Your task to perform on an android device: open a bookmark in the chrome app Image 0: 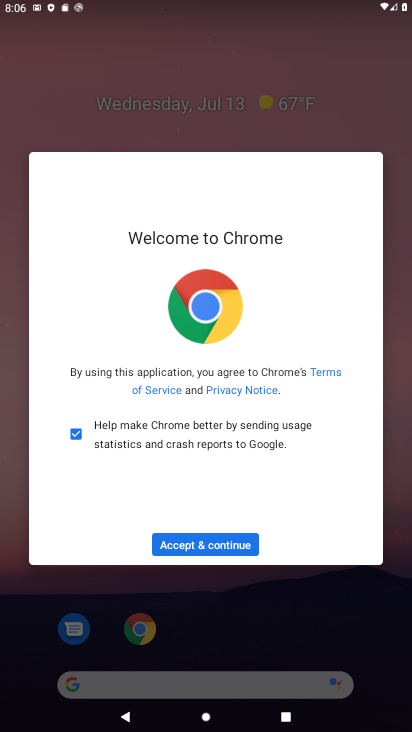
Step 0: click (237, 545)
Your task to perform on an android device: open a bookmark in the chrome app Image 1: 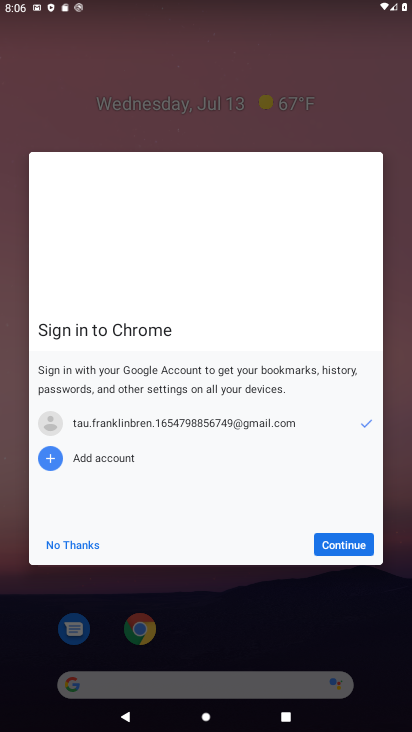
Step 1: click (361, 541)
Your task to perform on an android device: open a bookmark in the chrome app Image 2: 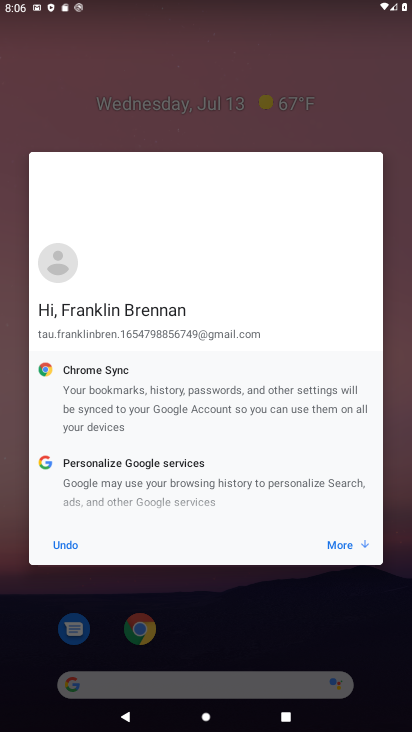
Step 2: click (339, 545)
Your task to perform on an android device: open a bookmark in the chrome app Image 3: 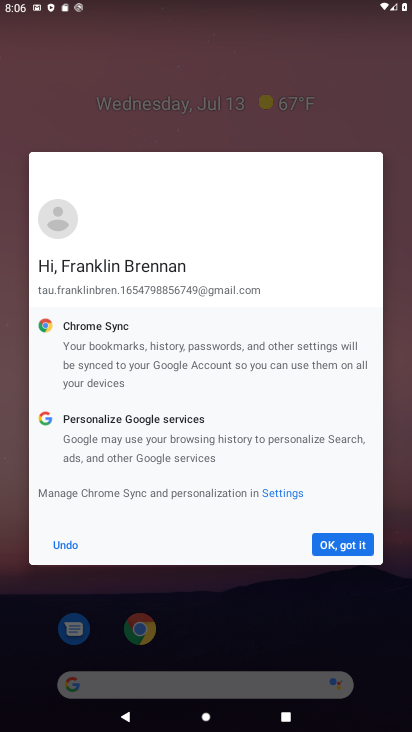
Step 3: click (339, 545)
Your task to perform on an android device: open a bookmark in the chrome app Image 4: 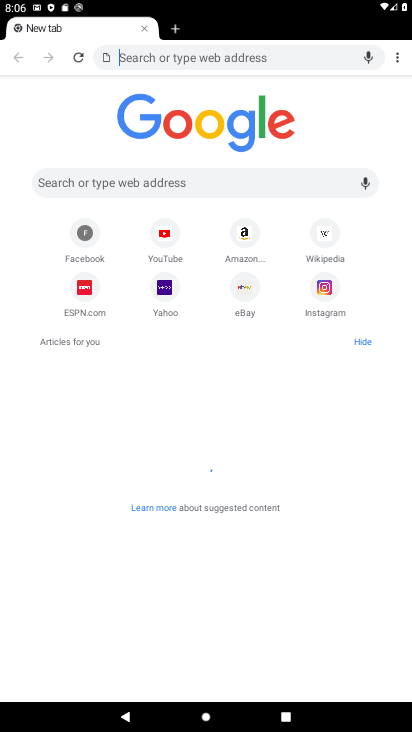
Step 4: click (397, 54)
Your task to perform on an android device: open a bookmark in the chrome app Image 5: 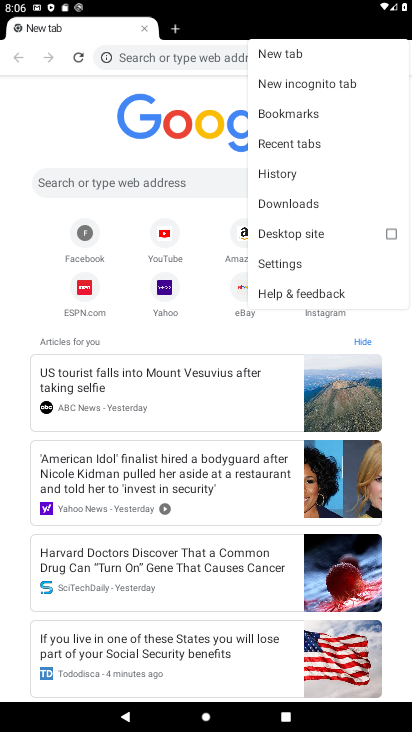
Step 5: click (305, 112)
Your task to perform on an android device: open a bookmark in the chrome app Image 6: 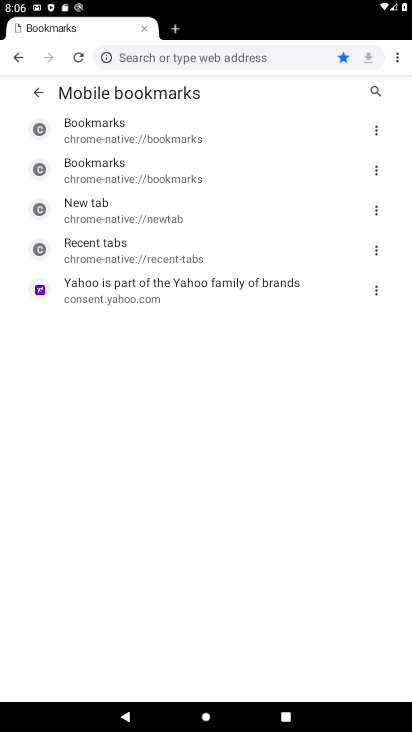
Step 6: click (110, 292)
Your task to perform on an android device: open a bookmark in the chrome app Image 7: 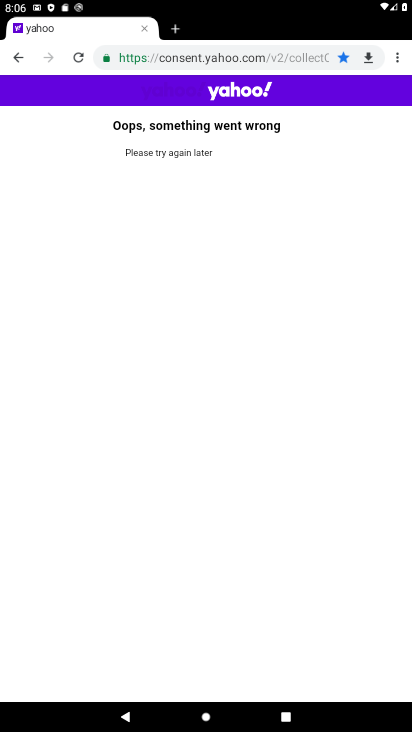
Step 7: task complete